Your task to perform on an android device: What's on my calendar today? Image 0: 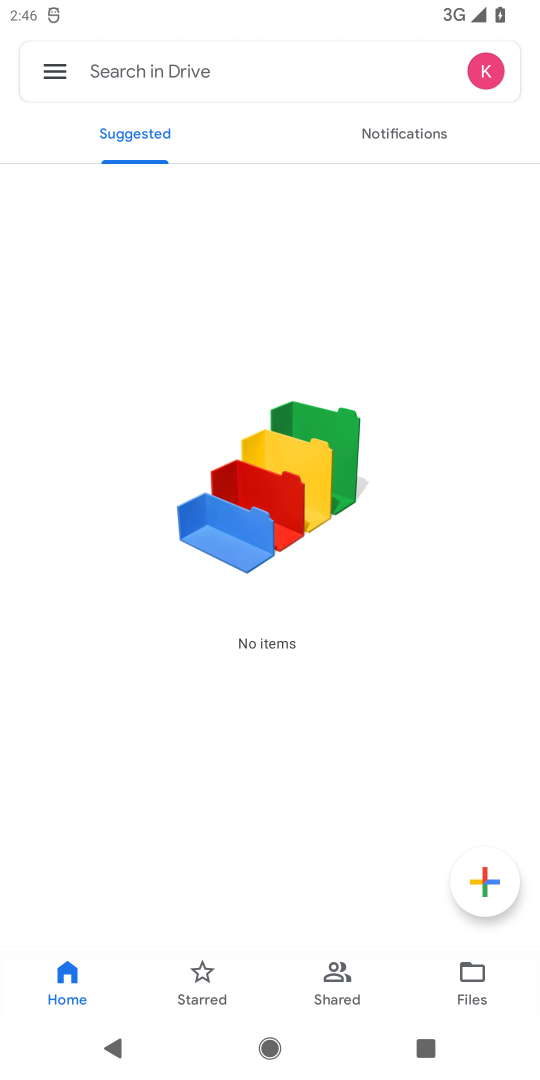
Step 0: press home button
Your task to perform on an android device: What's on my calendar today? Image 1: 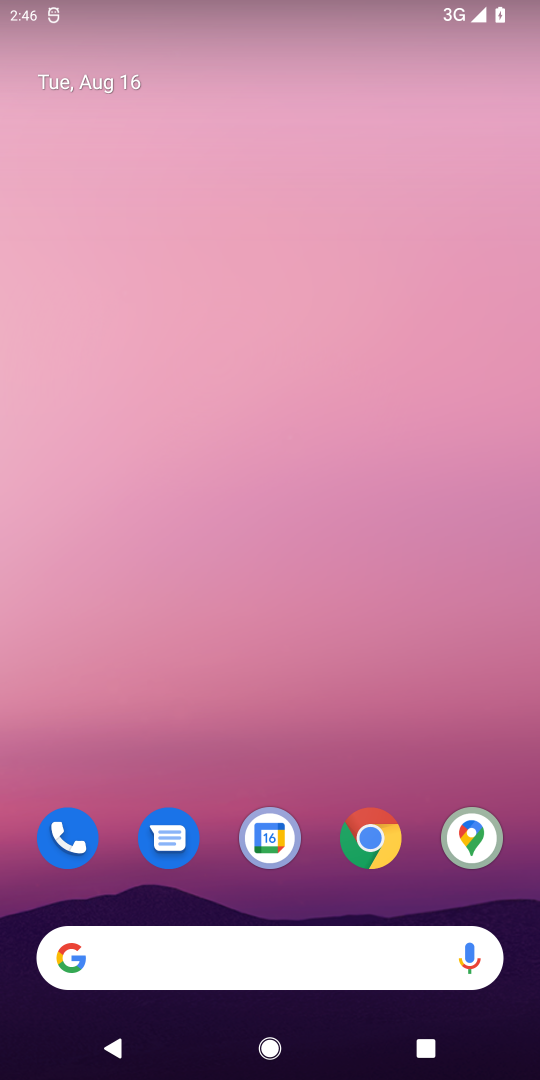
Step 1: drag from (314, 733) to (302, 102)
Your task to perform on an android device: What's on my calendar today? Image 2: 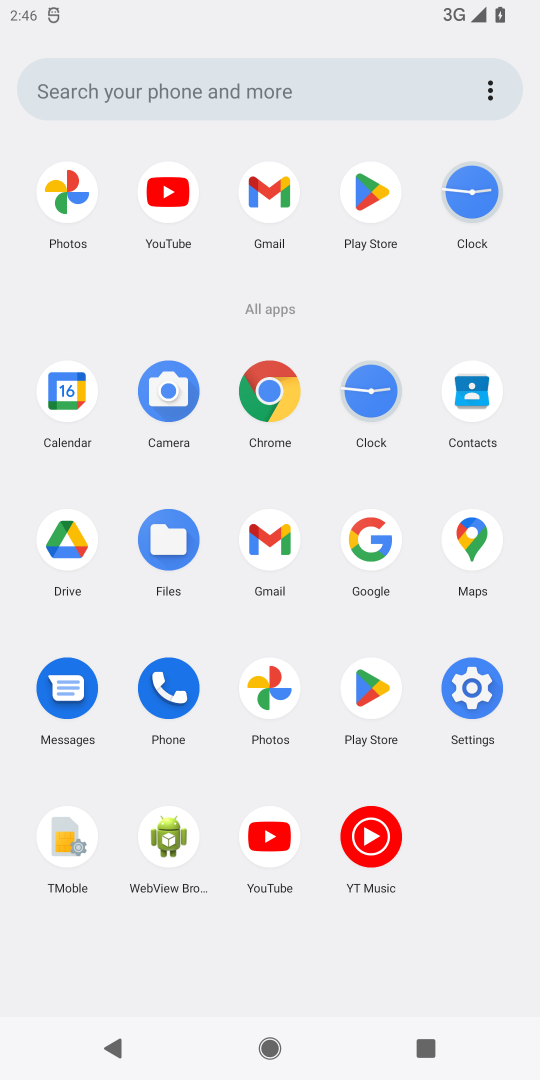
Step 2: click (61, 404)
Your task to perform on an android device: What's on my calendar today? Image 3: 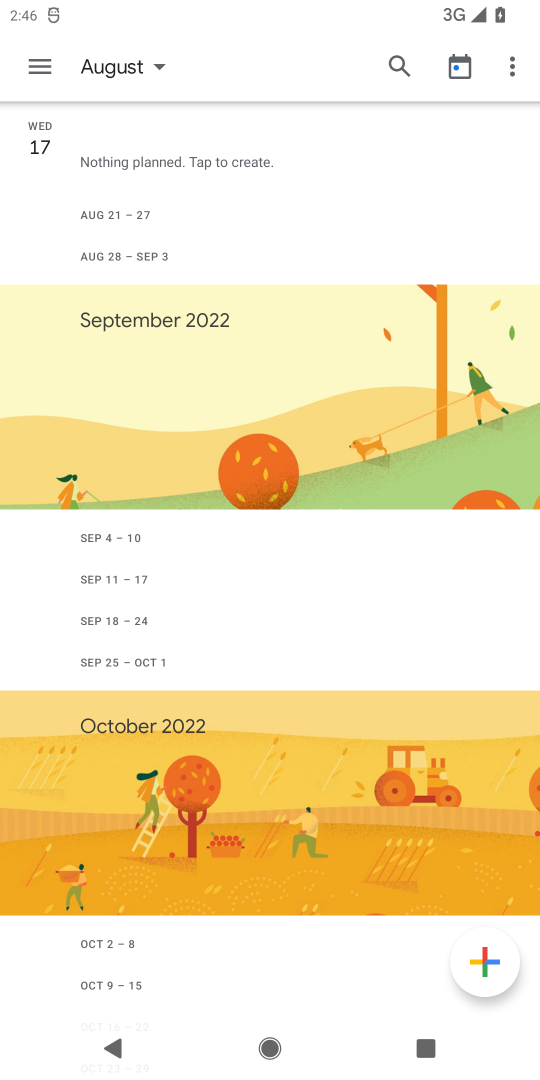
Step 3: click (41, 66)
Your task to perform on an android device: What's on my calendar today? Image 4: 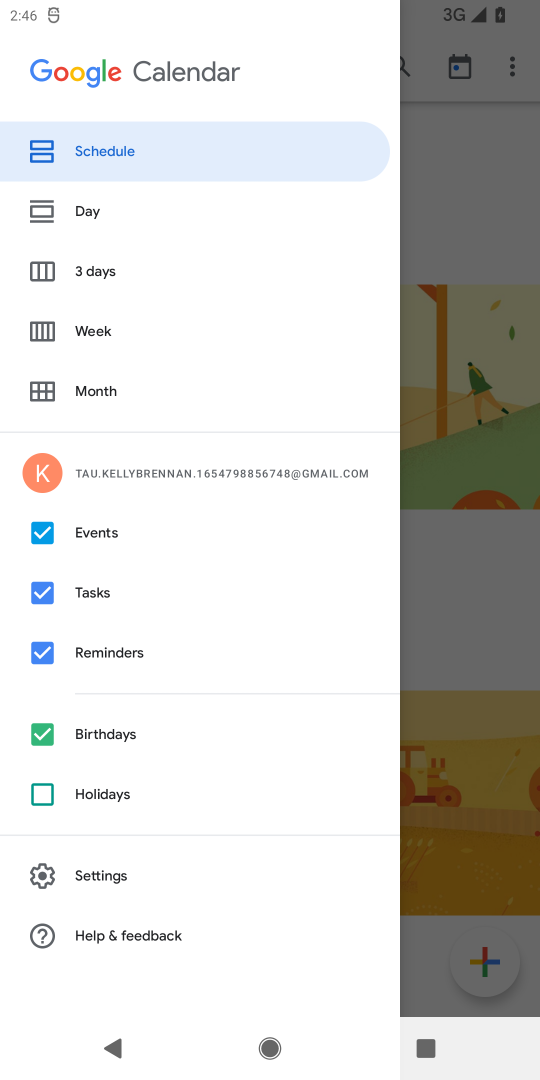
Step 4: click (128, 218)
Your task to perform on an android device: What's on my calendar today? Image 5: 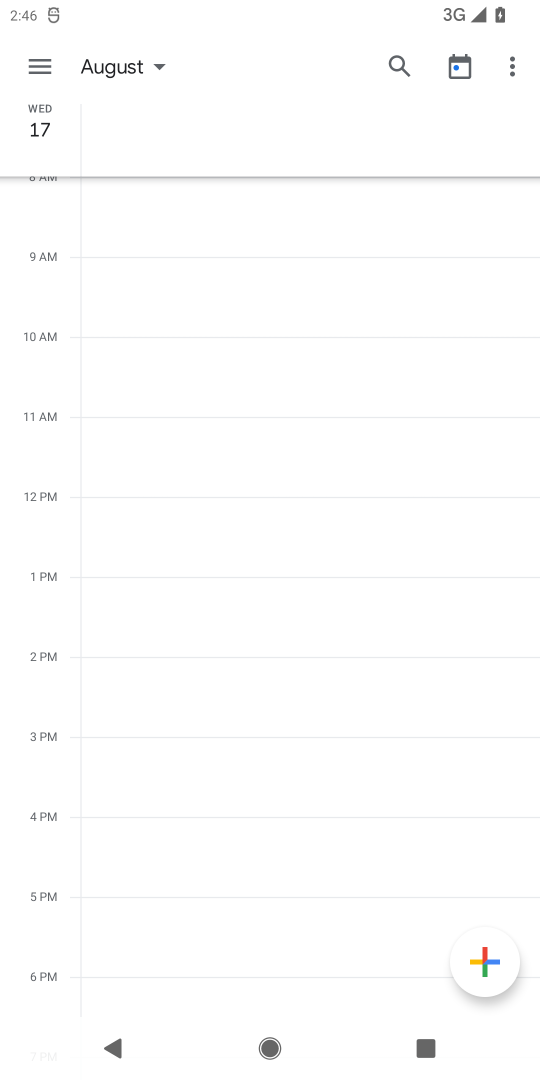
Step 5: drag from (153, 130) to (533, 136)
Your task to perform on an android device: What's on my calendar today? Image 6: 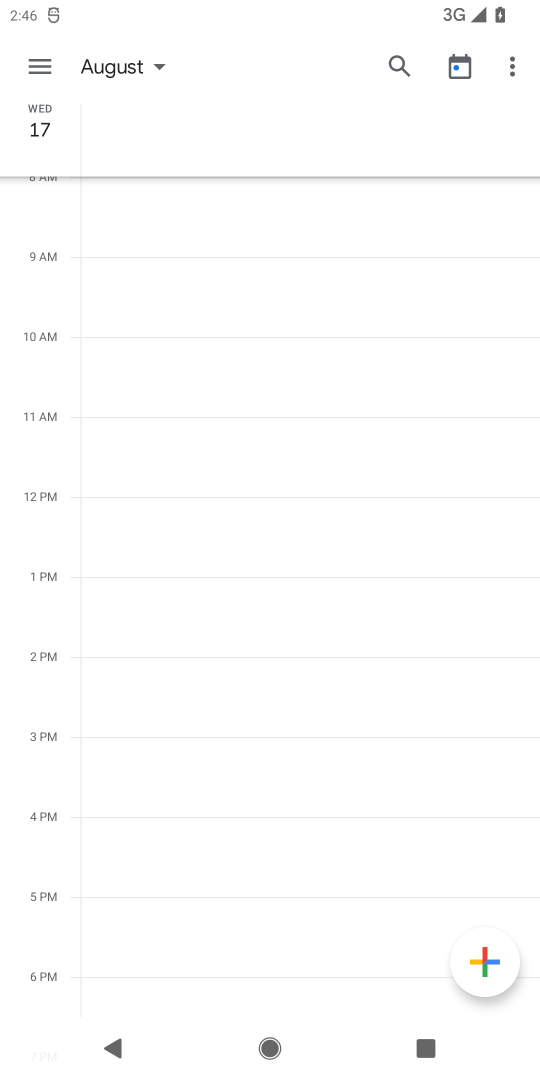
Step 6: drag from (129, 132) to (502, 159)
Your task to perform on an android device: What's on my calendar today? Image 7: 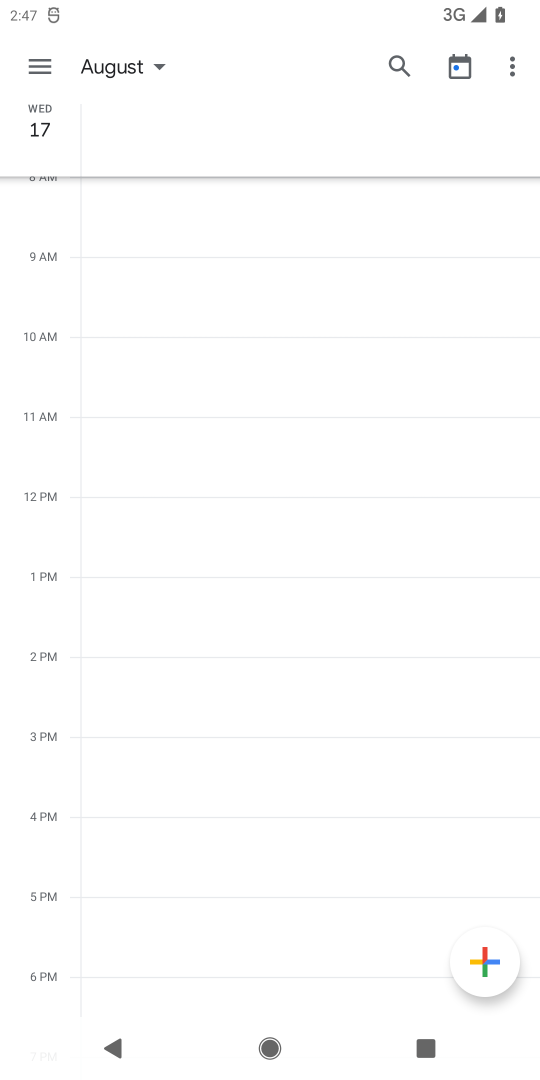
Step 7: drag from (87, 142) to (523, 337)
Your task to perform on an android device: What's on my calendar today? Image 8: 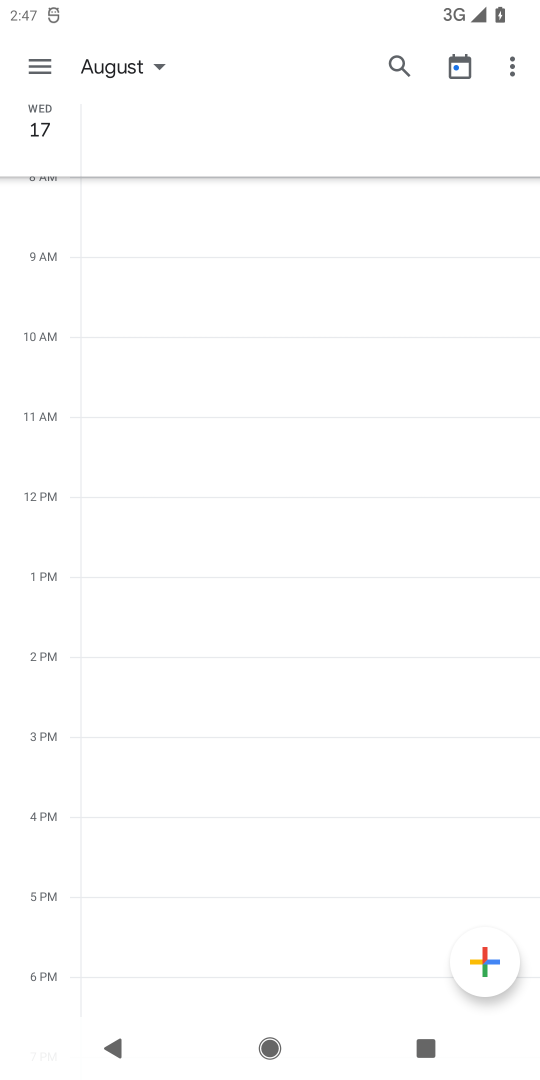
Step 8: drag from (93, 150) to (527, 737)
Your task to perform on an android device: What's on my calendar today? Image 9: 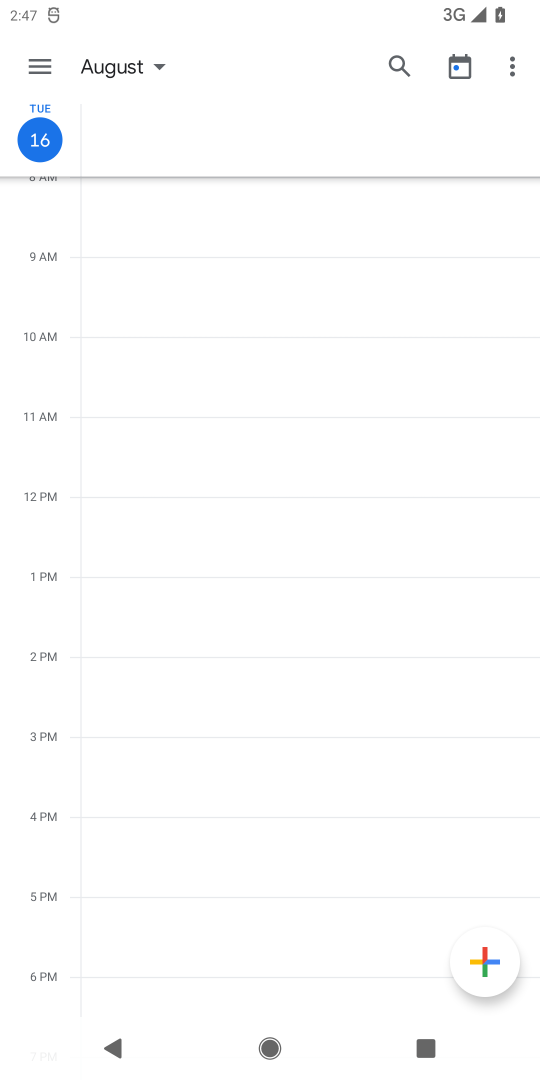
Step 9: click (35, 67)
Your task to perform on an android device: What's on my calendar today? Image 10: 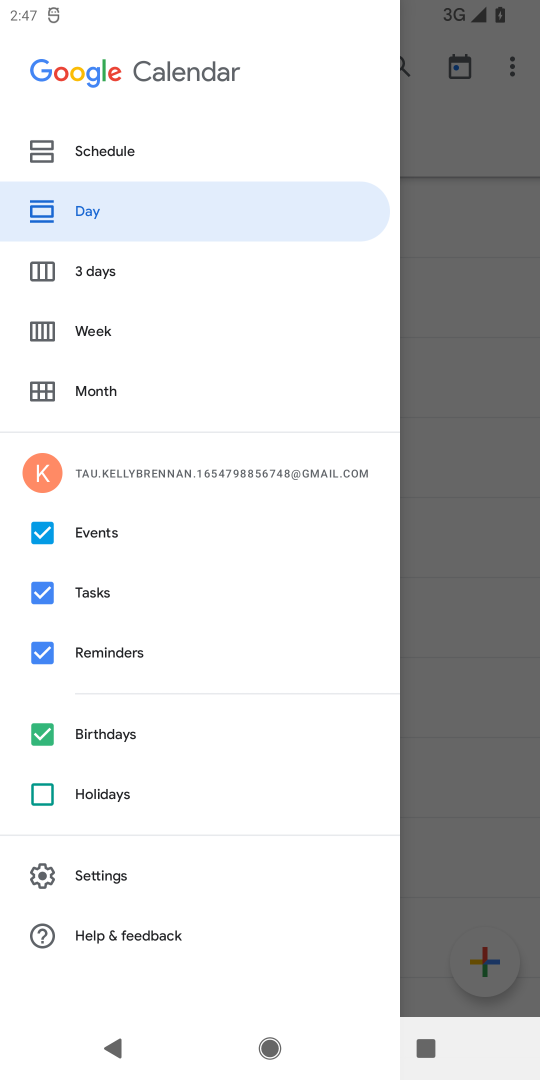
Step 10: click (90, 137)
Your task to perform on an android device: What's on my calendar today? Image 11: 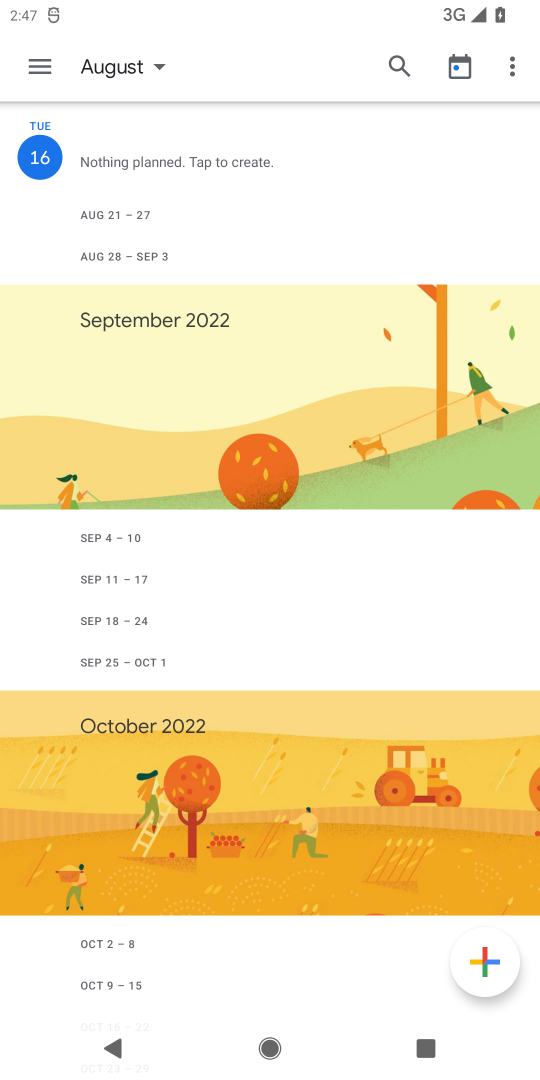
Step 11: task complete